Your task to perform on an android device: set the stopwatch Image 0: 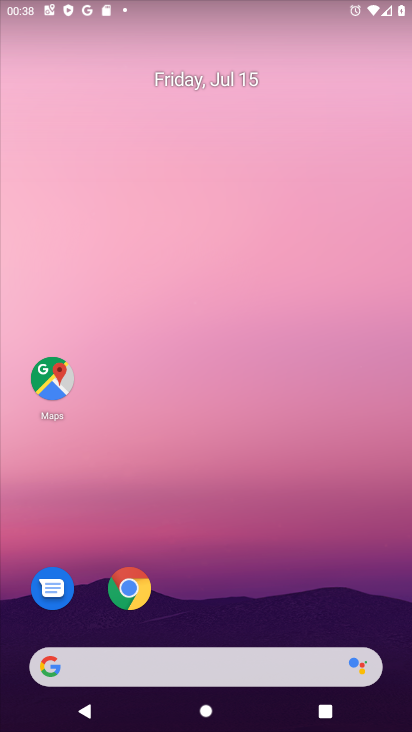
Step 0: drag from (170, 674) to (295, 224)
Your task to perform on an android device: set the stopwatch Image 1: 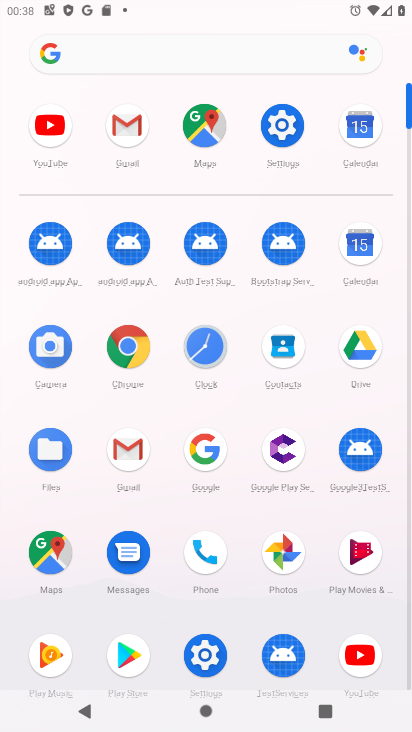
Step 1: click (208, 350)
Your task to perform on an android device: set the stopwatch Image 2: 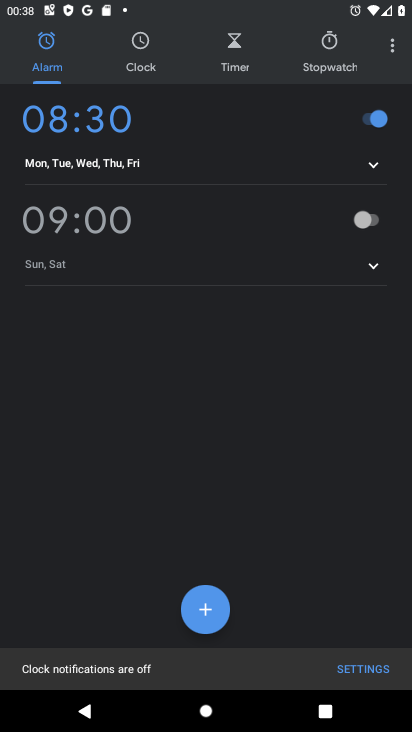
Step 2: click (319, 60)
Your task to perform on an android device: set the stopwatch Image 3: 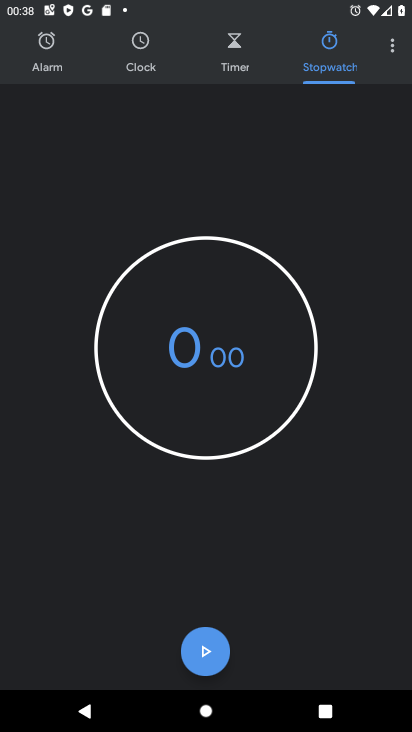
Step 3: click (210, 366)
Your task to perform on an android device: set the stopwatch Image 4: 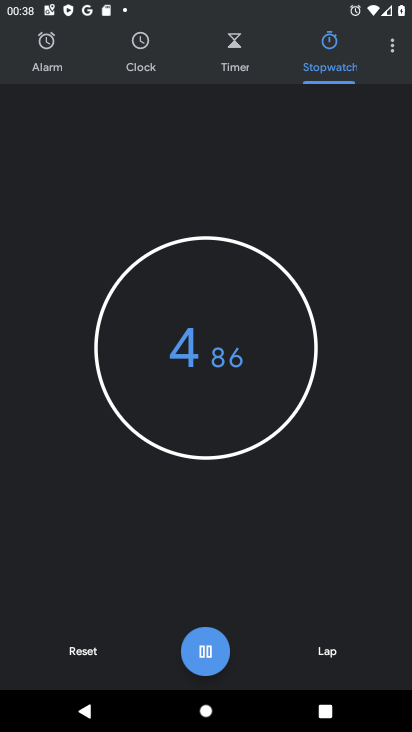
Step 4: click (210, 367)
Your task to perform on an android device: set the stopwatch Image 5: 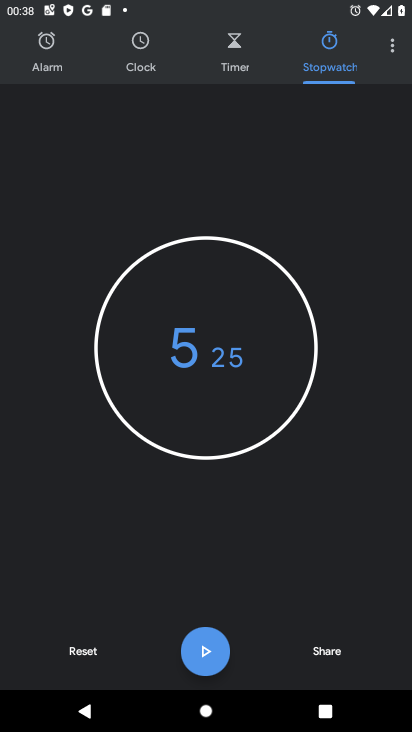
Step 5: task complete